Your task to perform on an android device: Open Reddit.com Image 0: 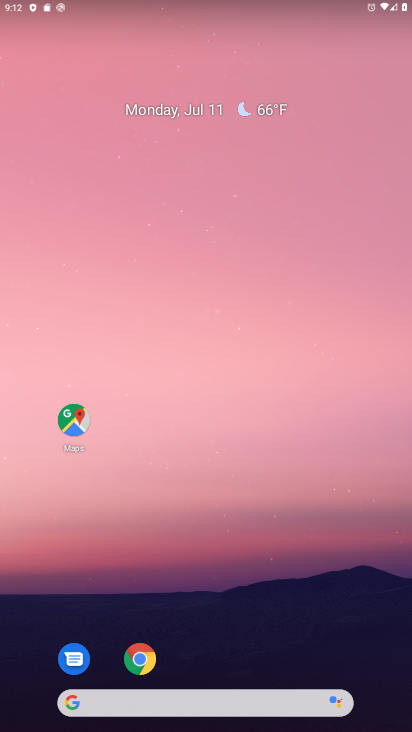
Step 0: drag from (332, 632) to (367, 104)
Your task to perform on an android device: Open Reddit.com Image 1: 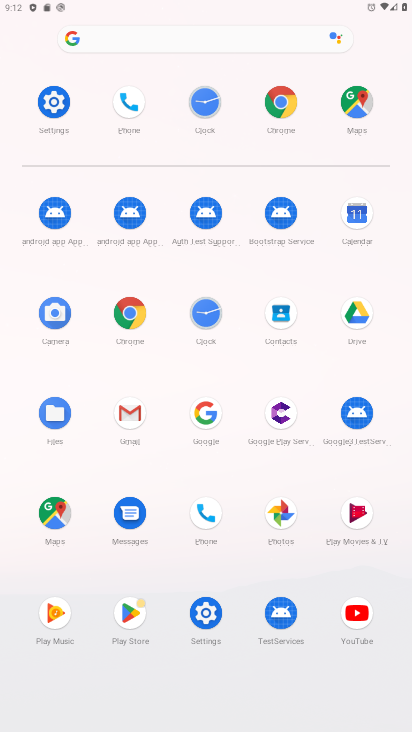
Step 1: click (129, 317)
Your task to perform on an android device: Open Reddit.com Image 2: 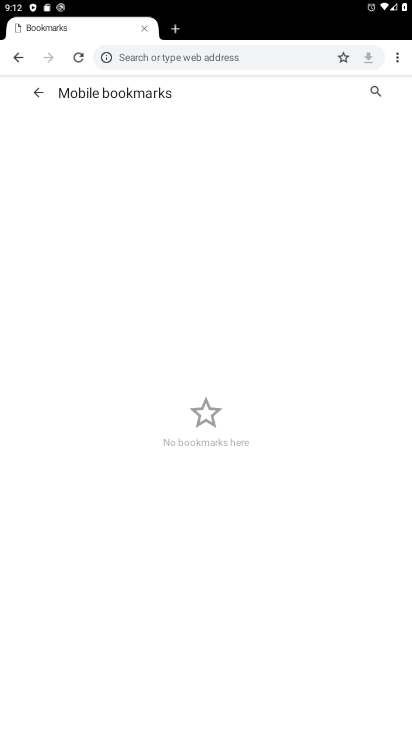
Step 2: click (204, 57)
Your task to perform on an android device: Open Reddit.com Image 3: 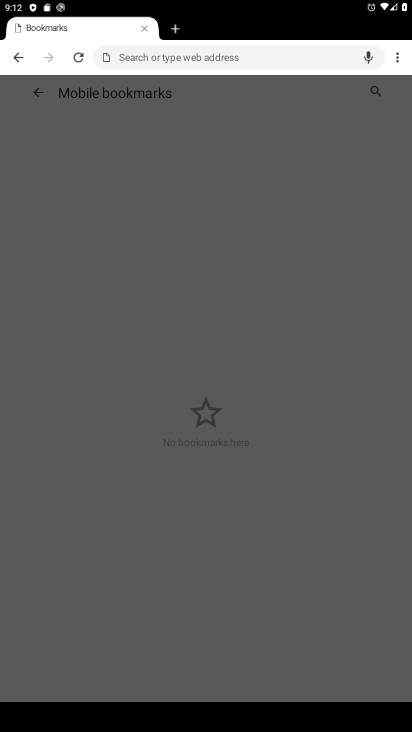
Step 3: type "reddit.com"
Your task to perform on an android device: Open Reddit.com Image 4: 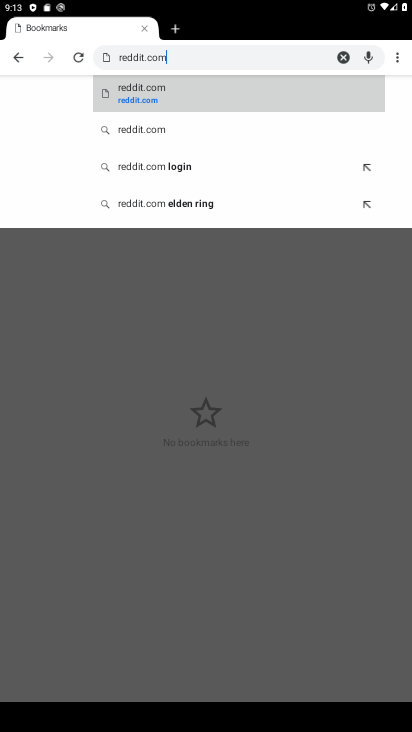
Step 4: click (161, 100)
Your task to perform on an android device: Open Reddit.com Image 5: 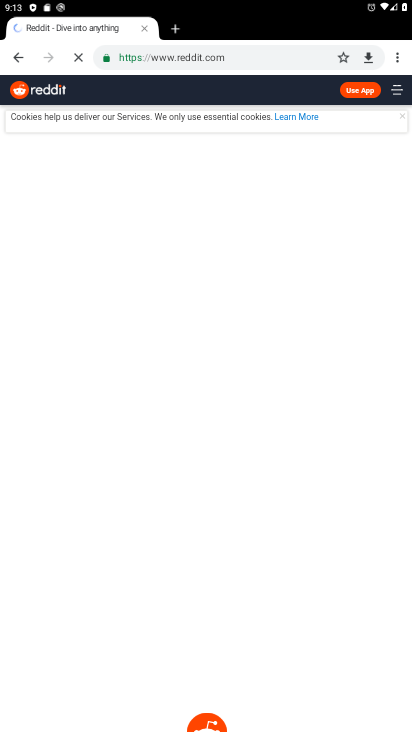
Step 5: task complete